Your task to perform on an android device: uninstall "LiveIn - Share Your Moment" Image 0: 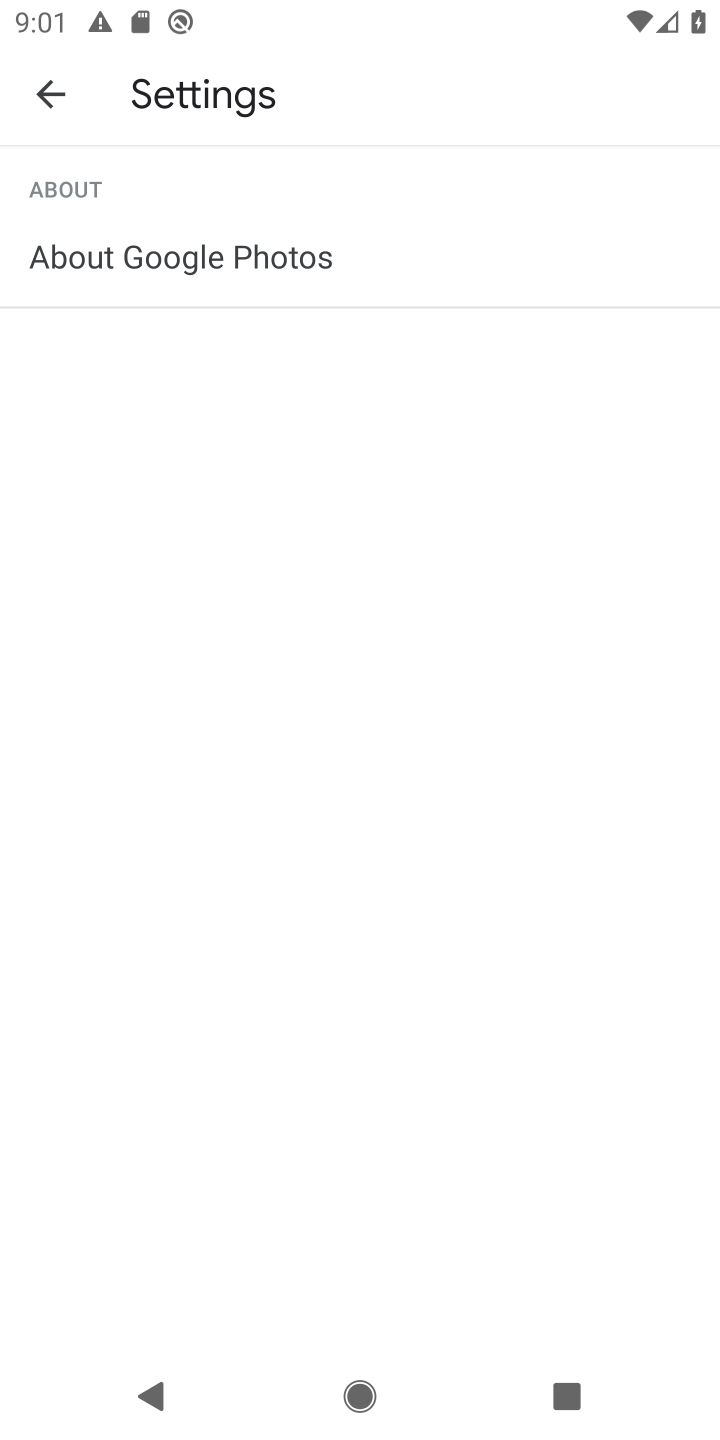
Step 0: press home button
Your task to perform on an android device: uninstall "LiveIn - Share Your Moment" Image 1: 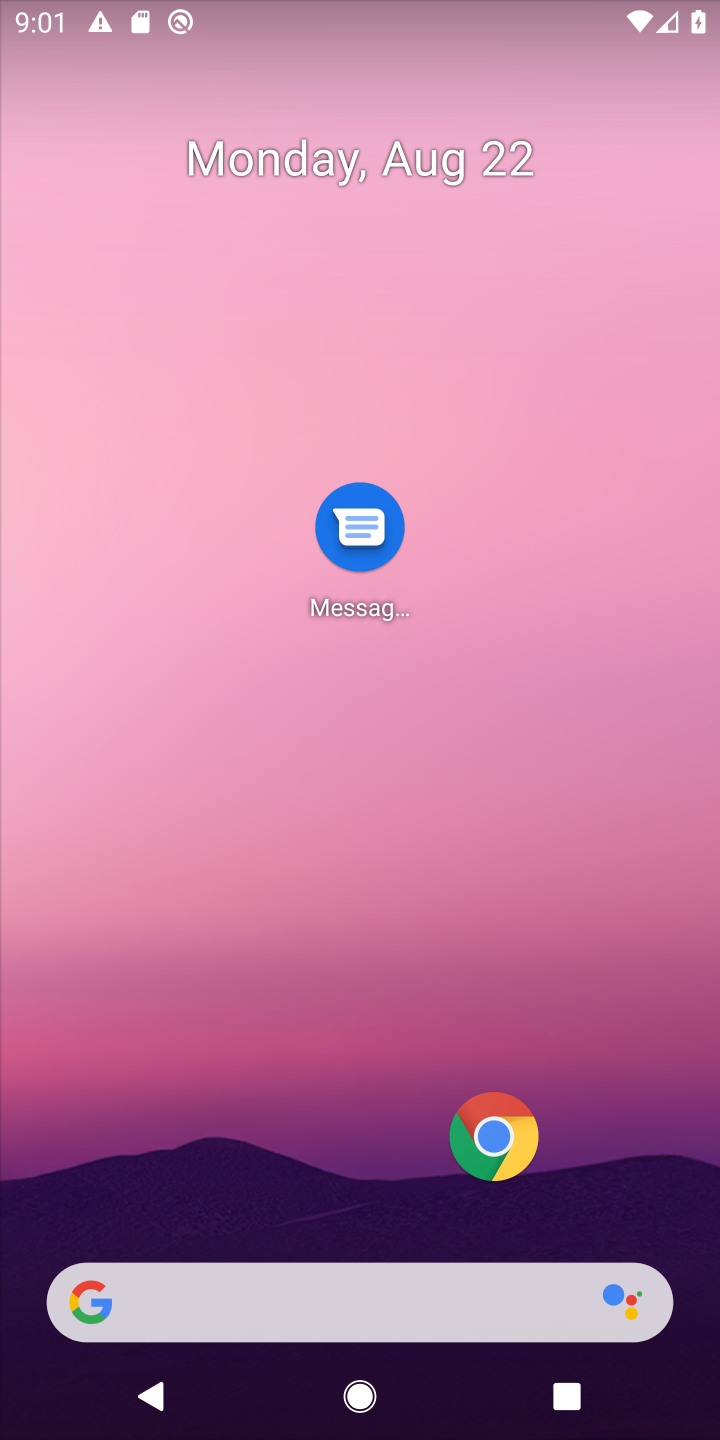
Step 1: drag from (341, 1217) to (332, 546)
Your task to perform on an android device: uninstall "LiveIn - Share Your Moment" Image 2: 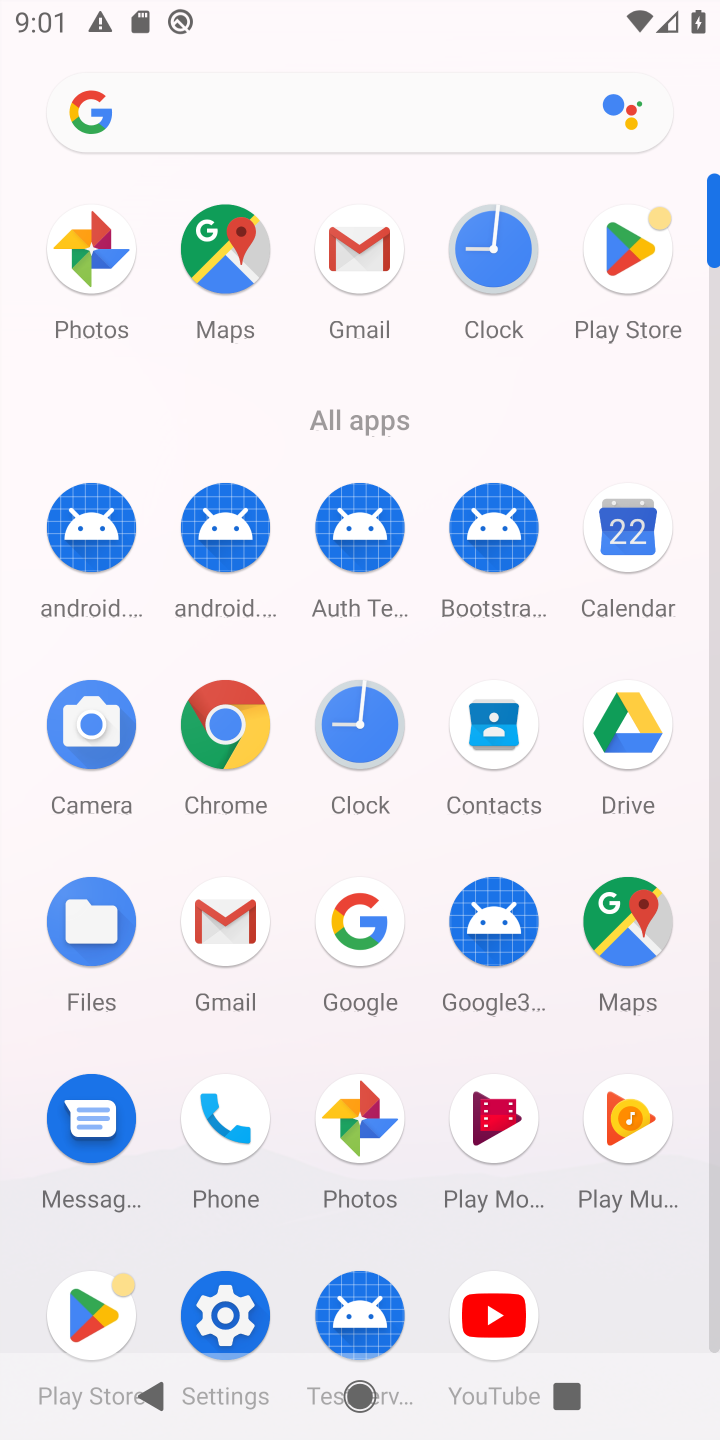
Step 2: click (616, 251)
Your task to perform on an android device: uninstall "LiveIn - Share Your Moment" Image 3: 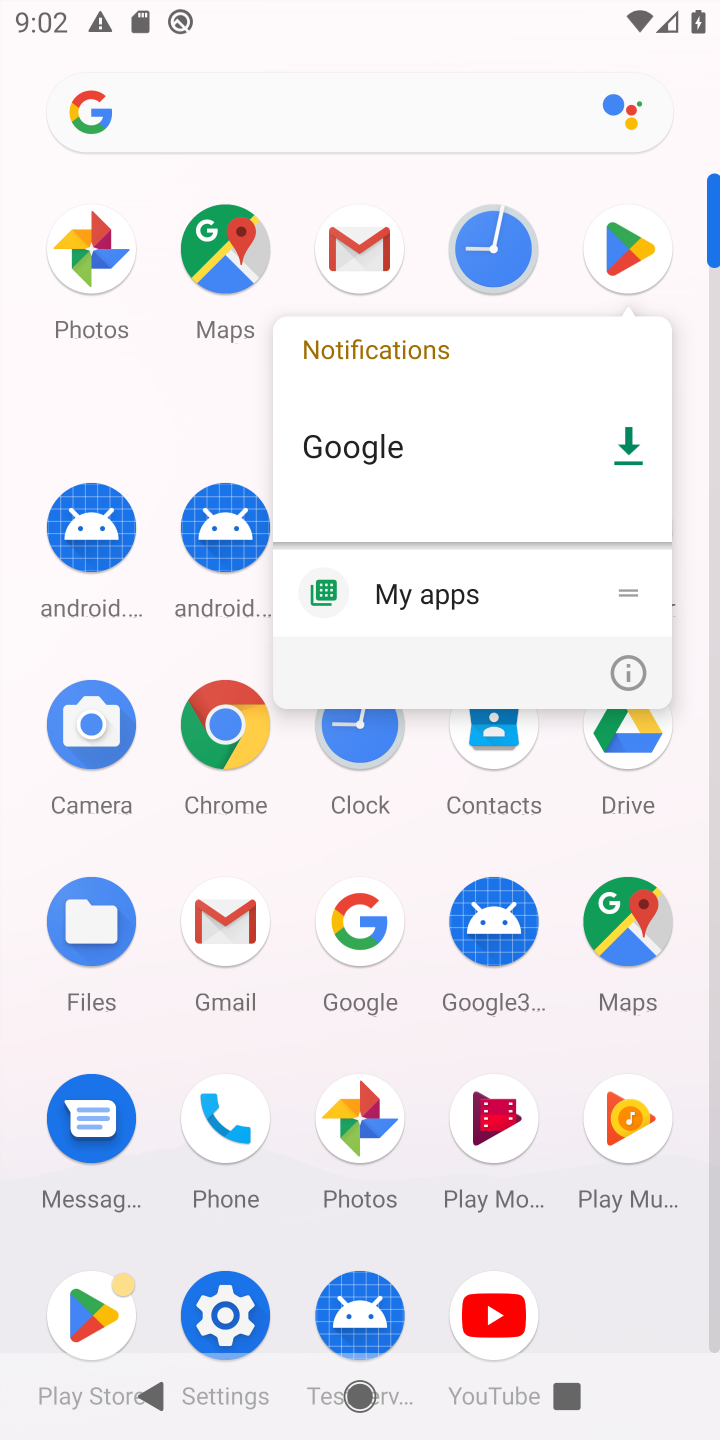
Step 3: click (616, 246)
Your task to perform on an android device: uninstall "LiveIn - Share Your Moment" Image 4: 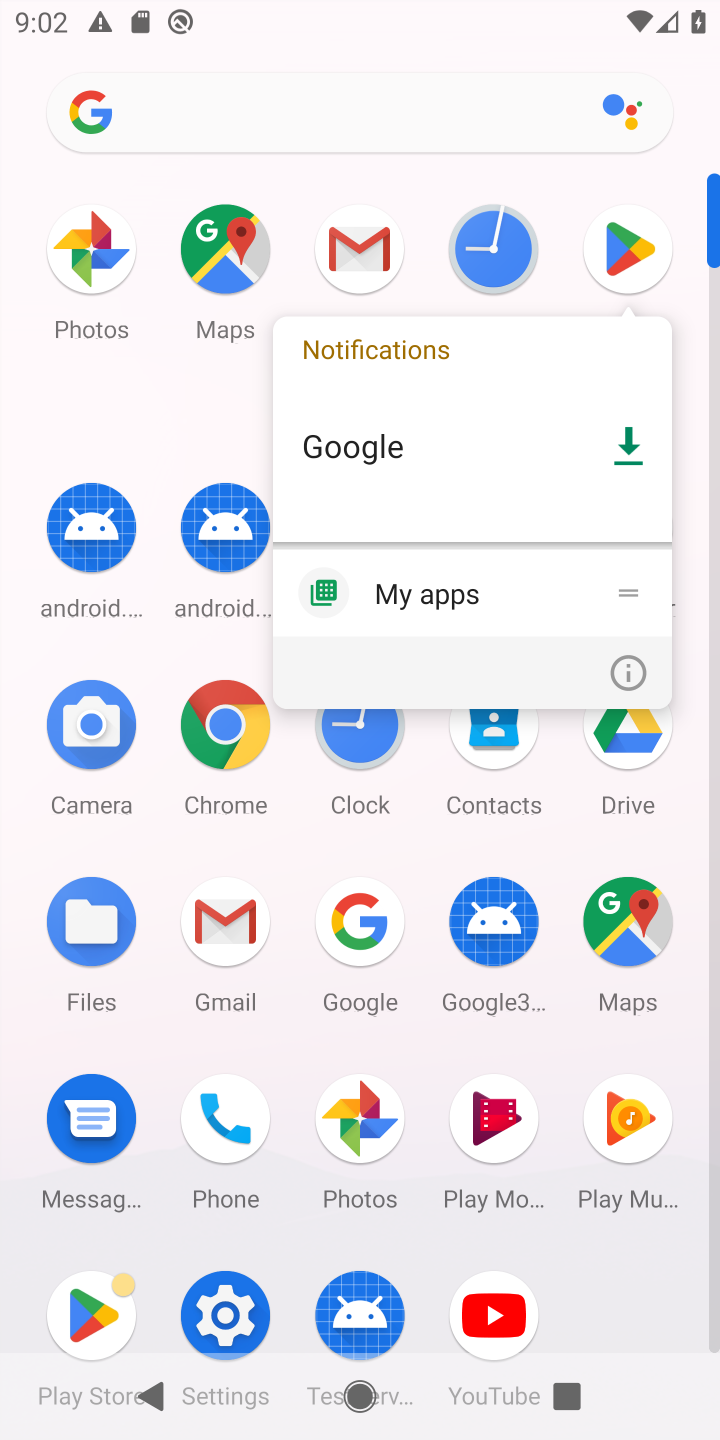
Step 4: click (616, 246)
Your task to perform on an android device: uninstall "LiveIn - Share Your Moment" Image 5: 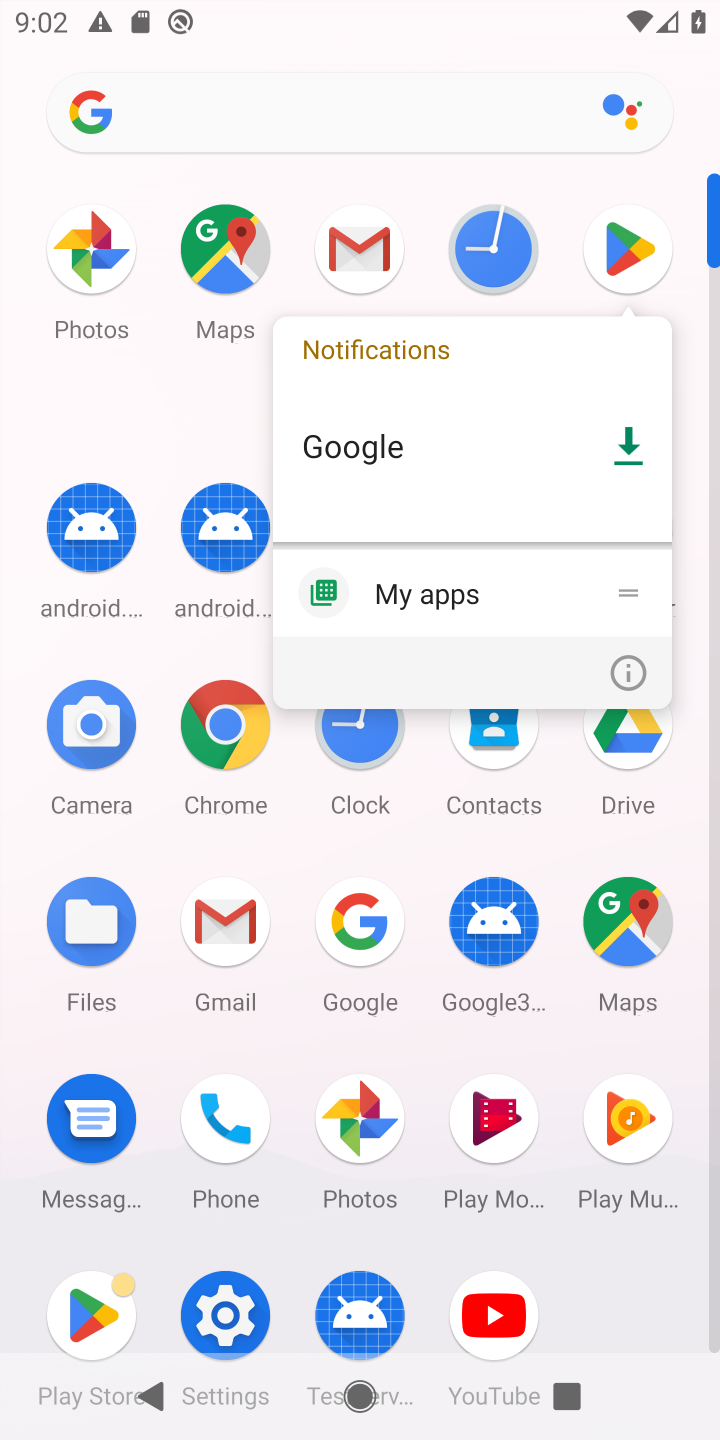
Step 5: click (616, 246)
Your task to perform on an android device: uninstall "LiveIn - Share Your Moment" Image 6: 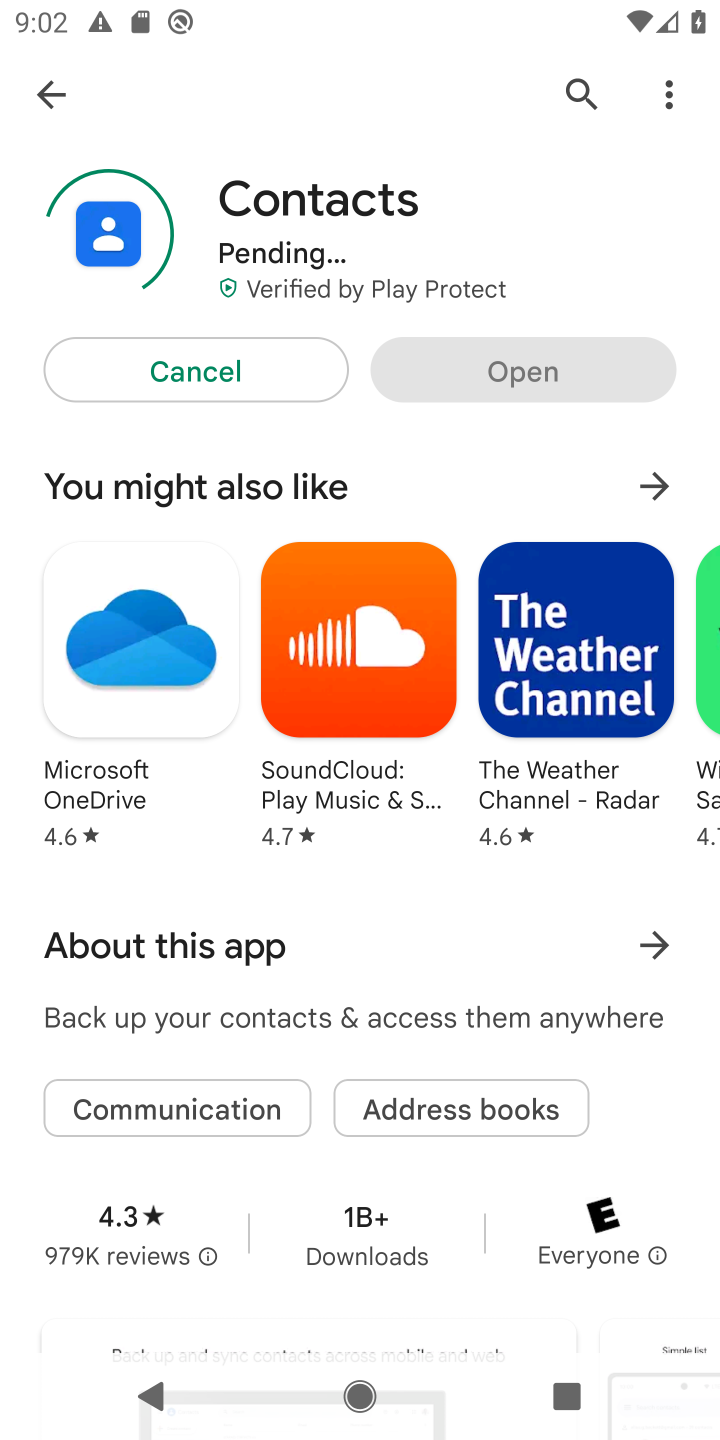
Step 6: click (37, 86)
Your task to perform on an android device: uninstall "LiveIn - Share Your Moment" Image 7: 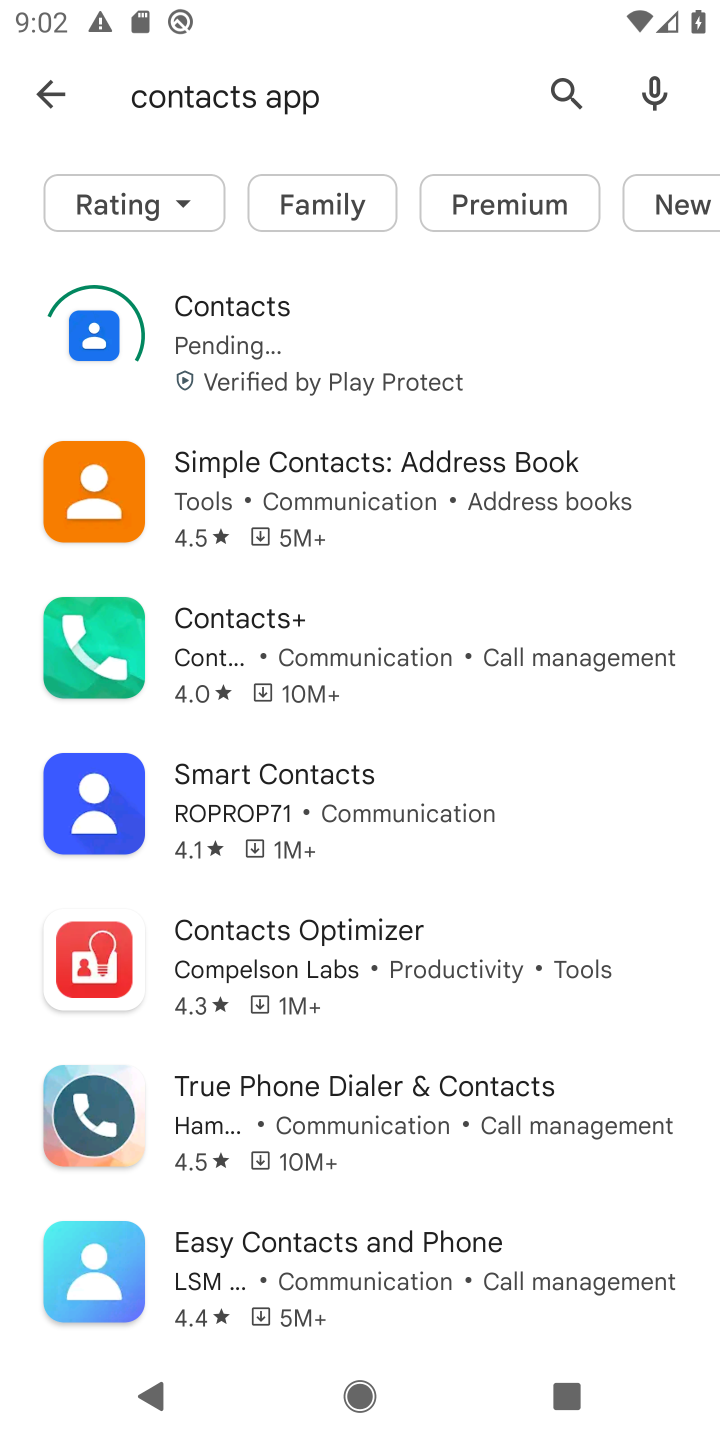
Step 7: click (44, 93)
Your task to perform on an android device: uninstall "LiveIn - Share Your Moment" Image 8: 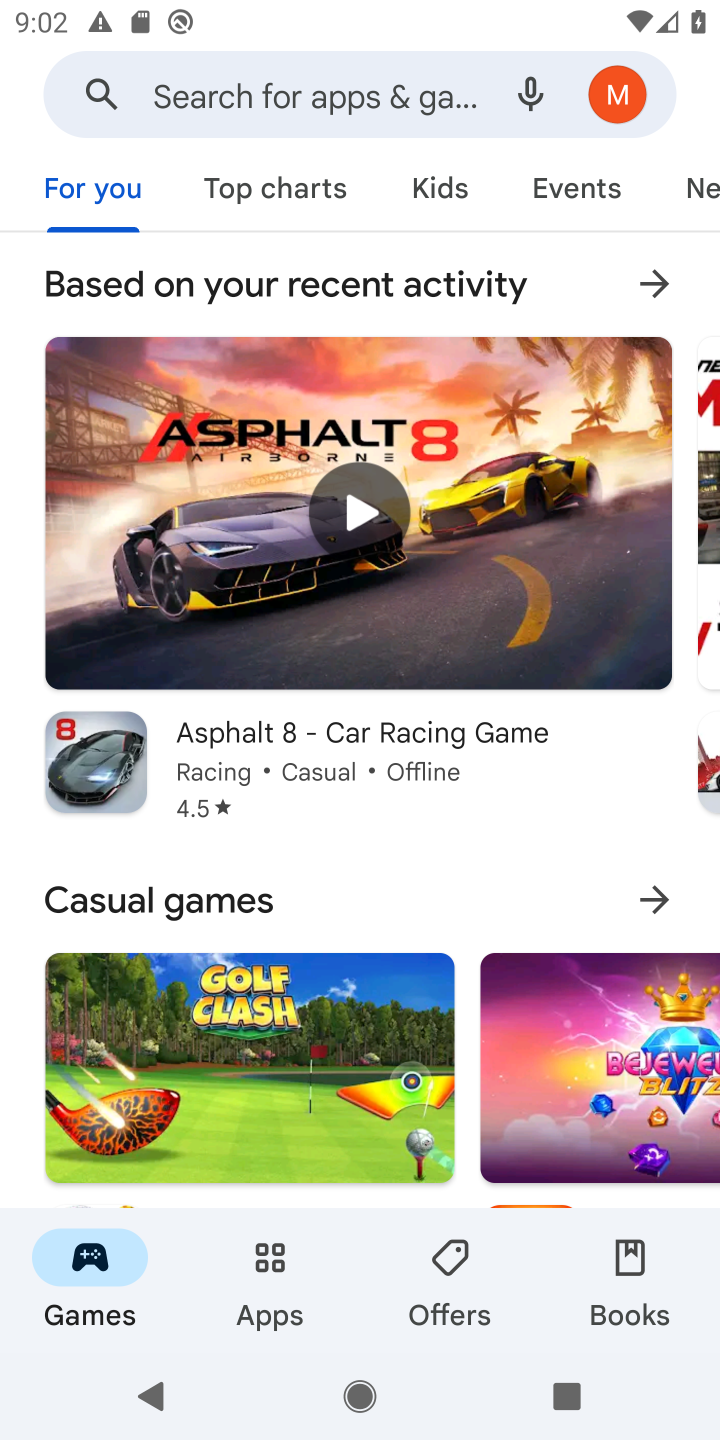
Step 8: click (330, 105)
Your task to perform on an android device: uninstall "LiveIn - Share Your Moment" Image 9: 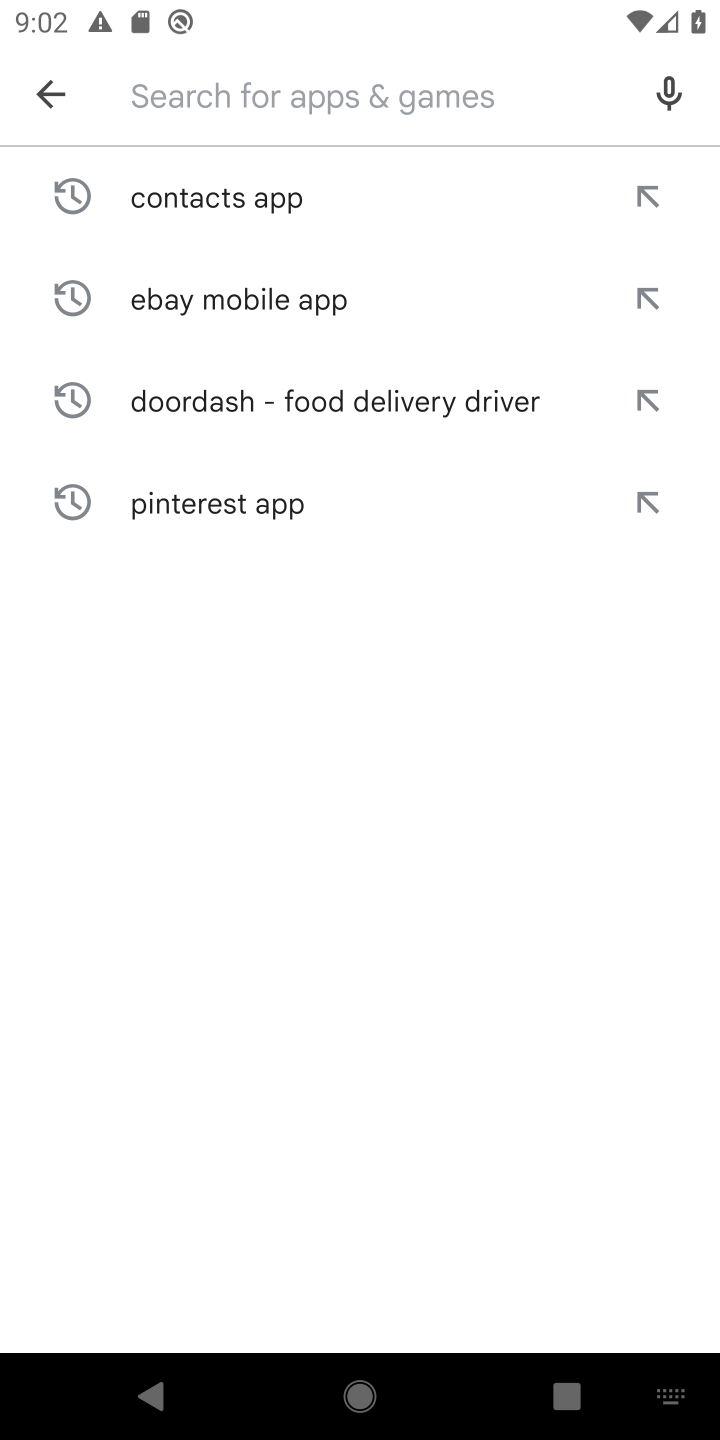
Step 9: type "LiveIn - Share Your Moment "
Your task to perform on an android device: uninstall "LiveIn - Share Your Moment" Image 10: 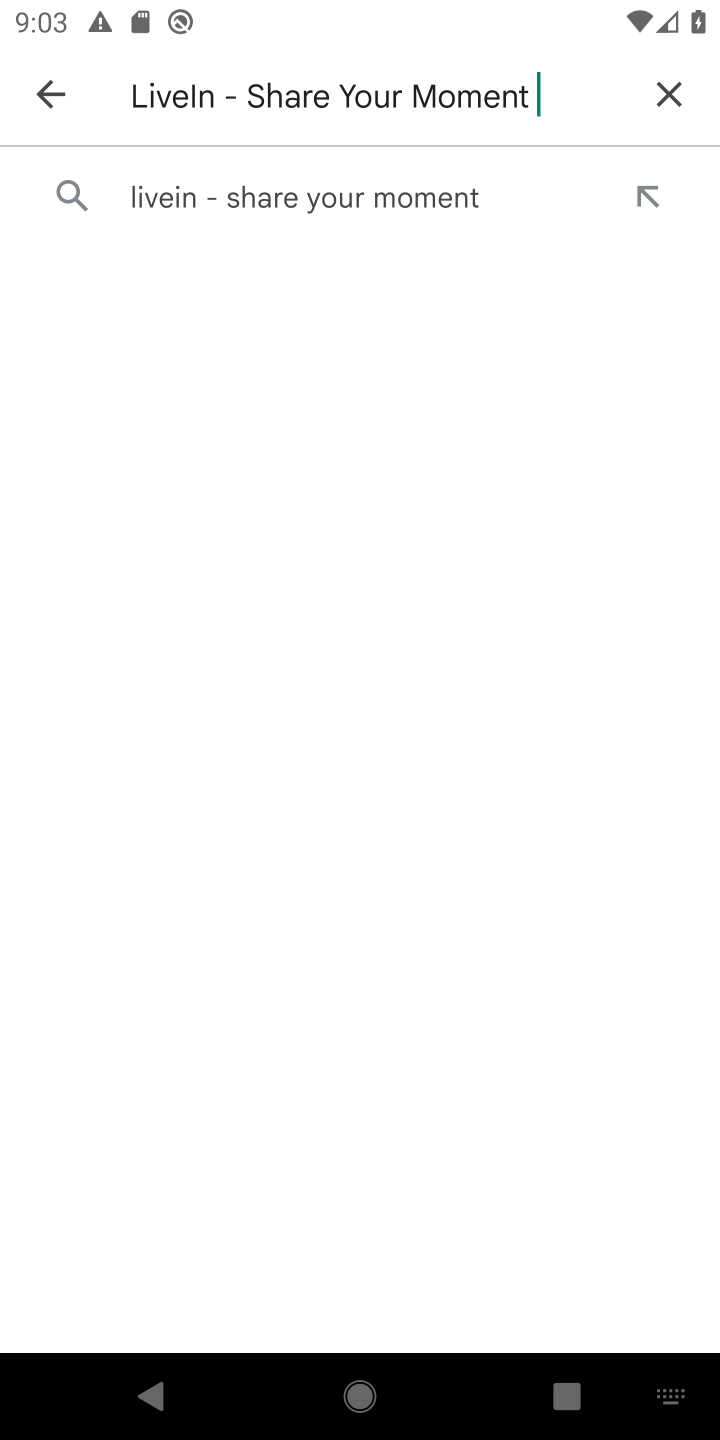
Step 10: click (310, 175)
Your task to perform on an android device: uninstall "LiveIn - Share Your Moment" Image 11: 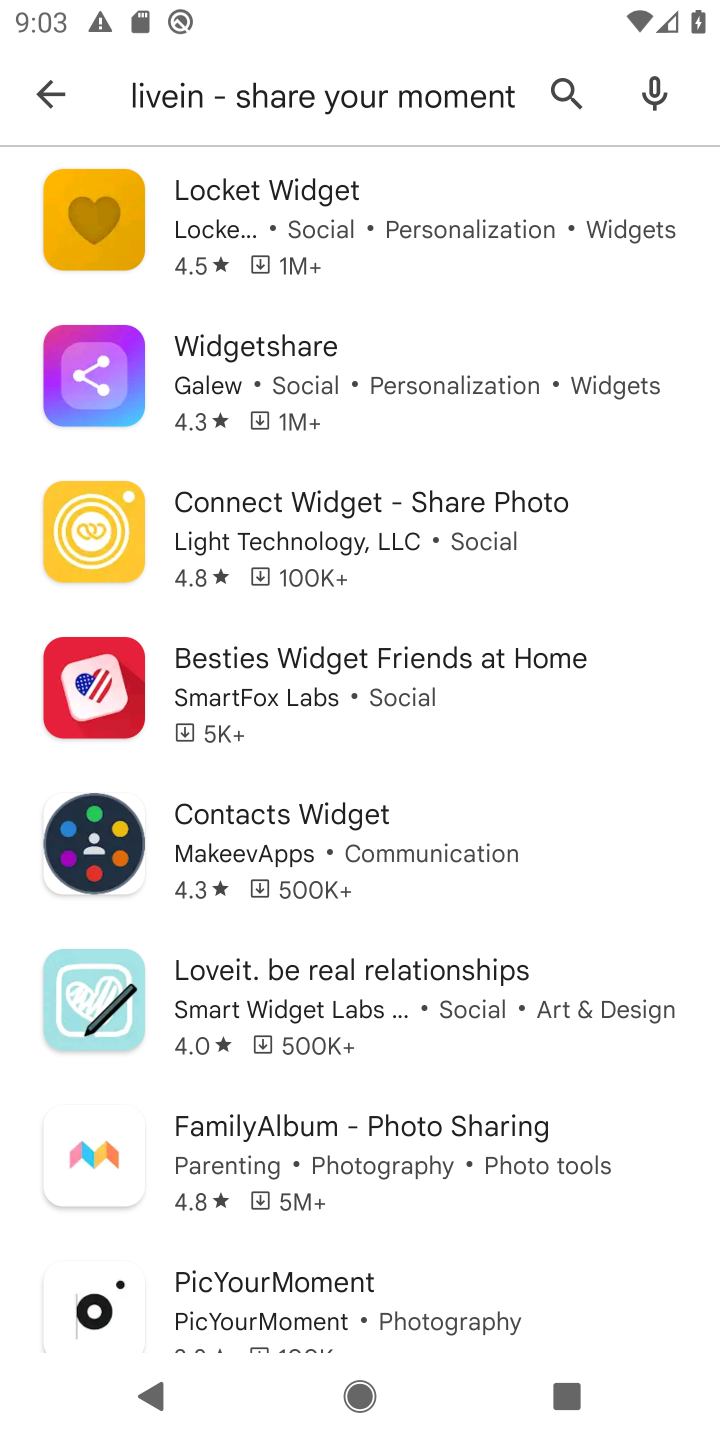
Step 11: click (60, 87)
Your task to perform on an android device: uninstall "LiveIn - Share Your Moment" Image 12: 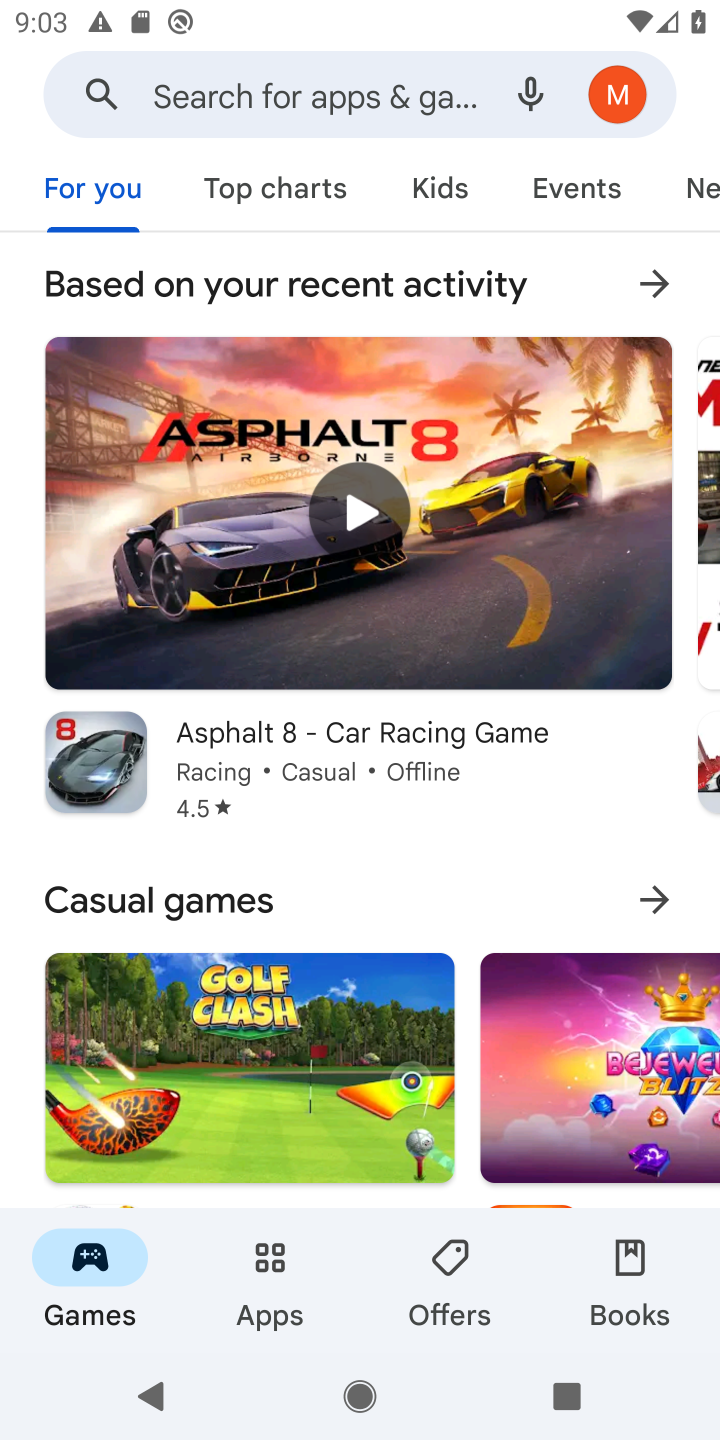
Step 12: click (342, 76)
Your task to perform on an android device: uninstall "LiveIn - Share Your Moment" Image 13: 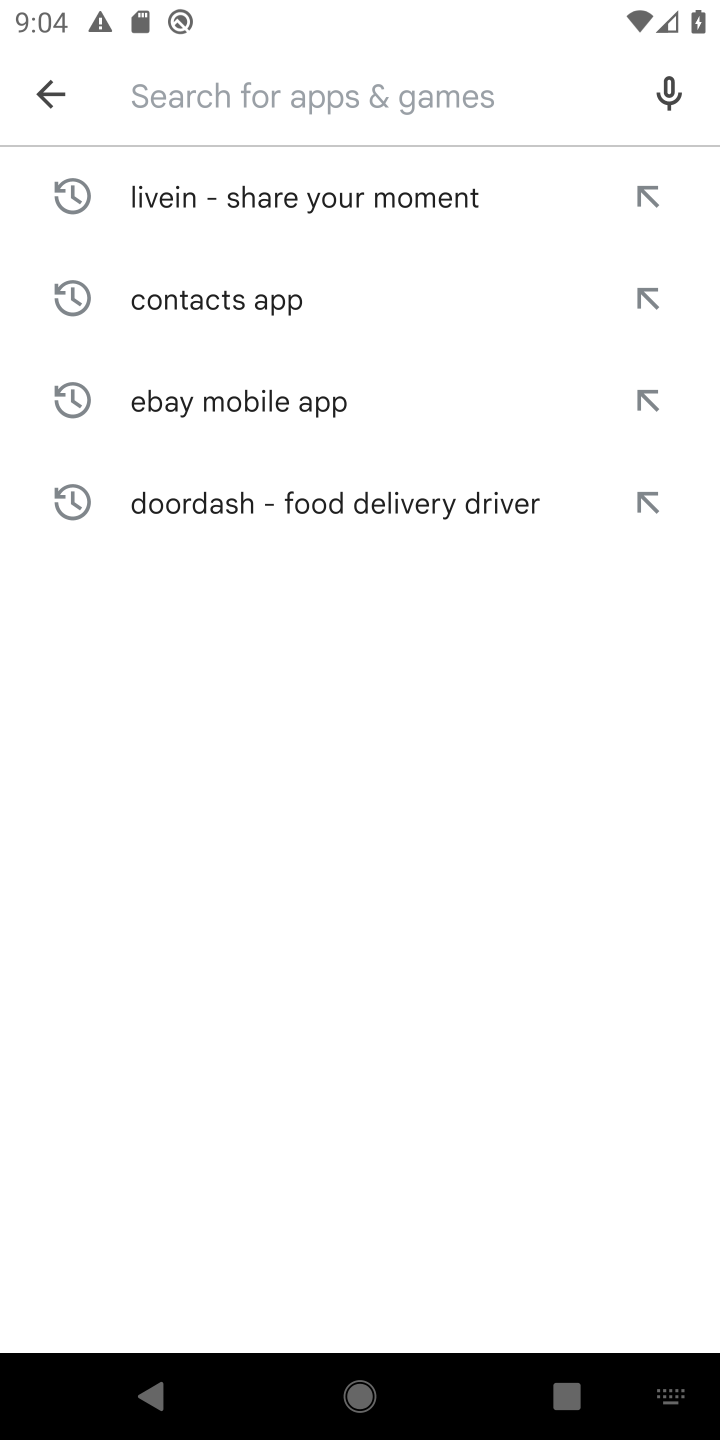
Step 13: type "LiveIn  "
Your task to perform on an android device: uninstall "LiveIn - Share Your Moment" Image 14: 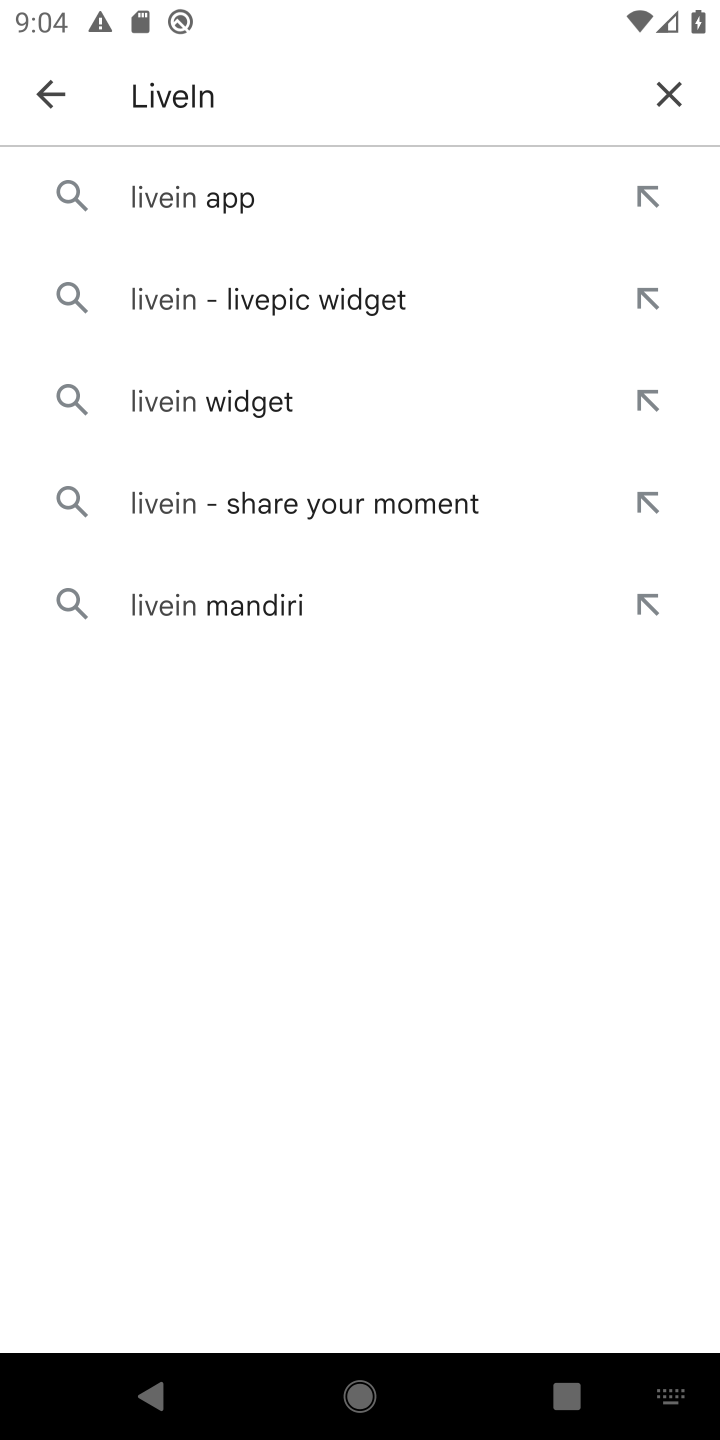
Step 14: click (263, 208)
Your task to perform on an android device: uninstall "LiveIn - Share Your Moment" Image 15: 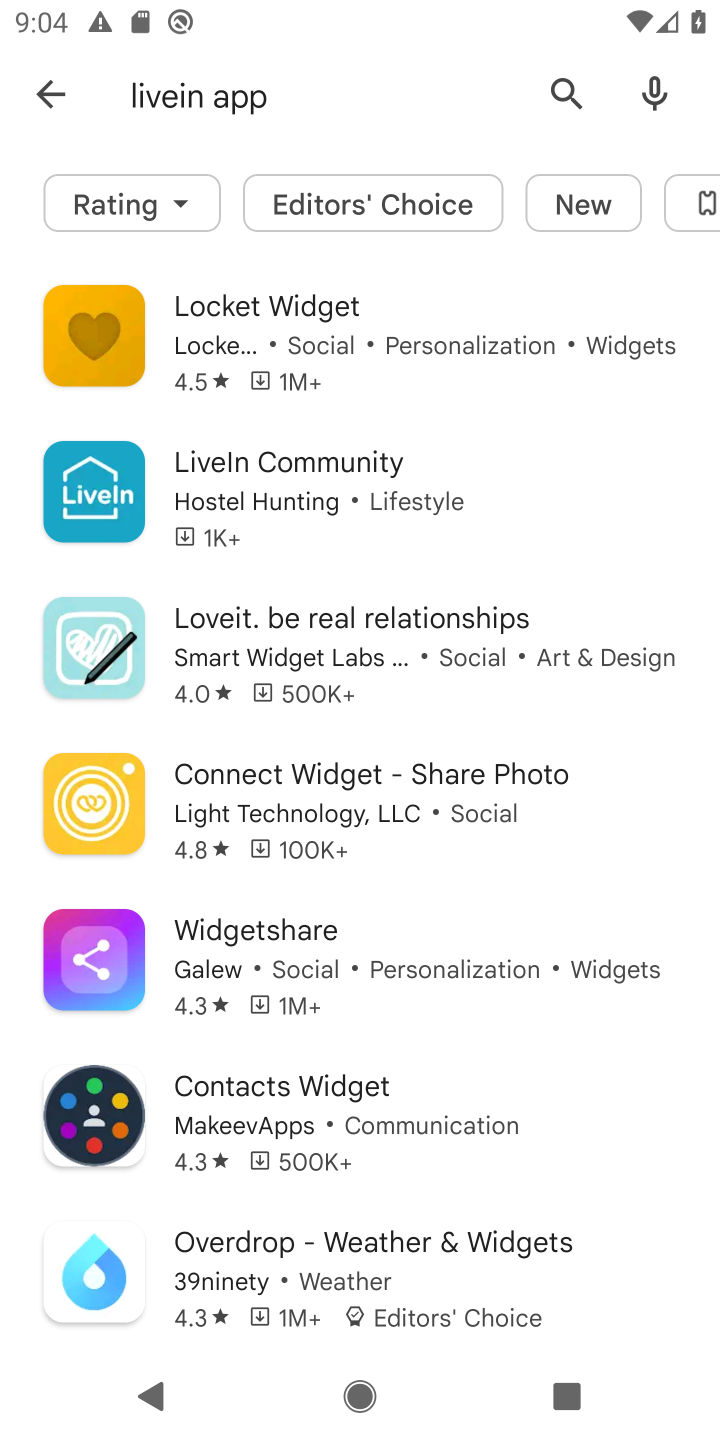
Step 15: task complete